Your task to perform on an android device: Go to Yahoo.com Image 0: 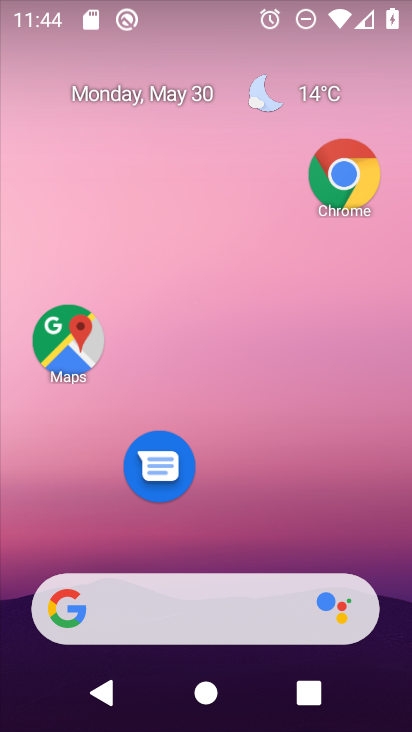
Step 0: click (322, 162)
Your task to perform on an android device: Go to Yahoo.com Image 1: 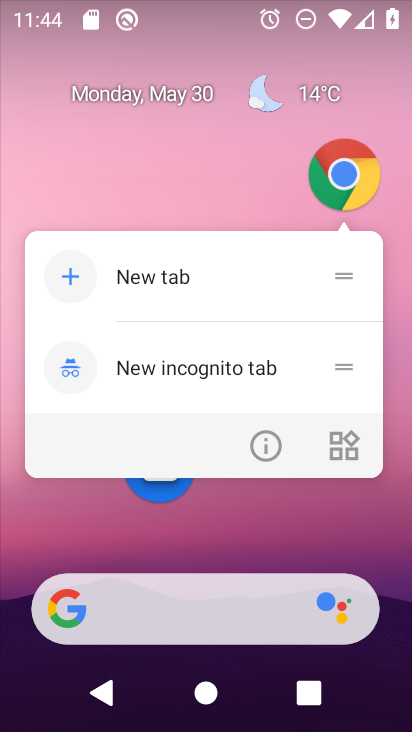
Step 1: click (322, 163)
Your task to perform on an android device: Go to Yahoo.com Image 2: 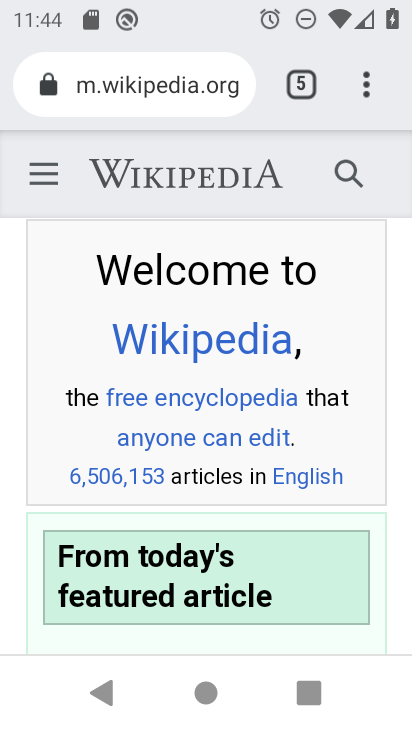
Step 2: click (296, 82)
Your task to perform on an android device: Go to Yahoo.com Image 3: 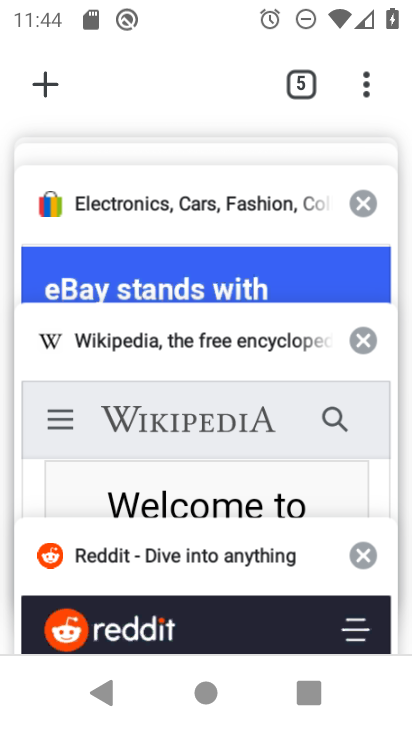
Step 3: drag from (243, 219) to (289, 536)
Your task to perform on an android device: Go to Yahoo.com Image 4: 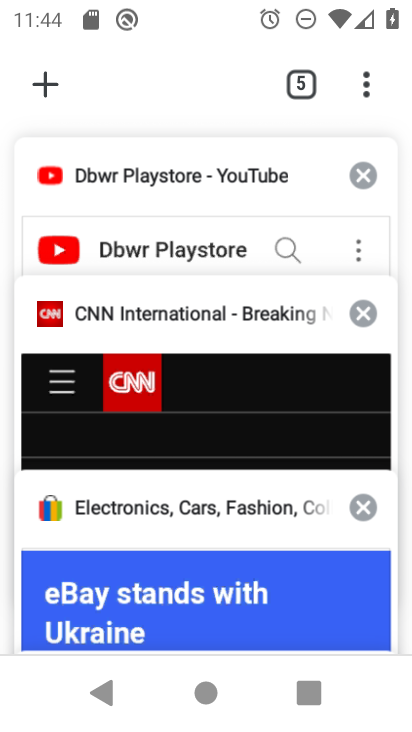
Step 4: click (45, 88)
Your task to perform on an android device: Go to Yahoo.com Image 5: 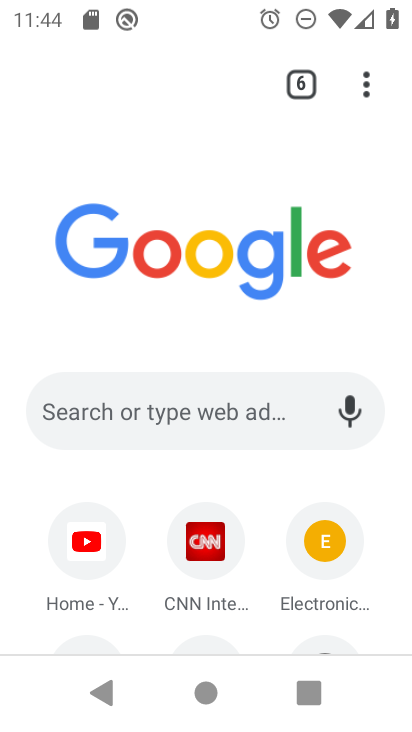
Step 5: drag from (265, 573) to (260, 347)
Your task to perform on an android device: Go to Yahoo.com Image 6: 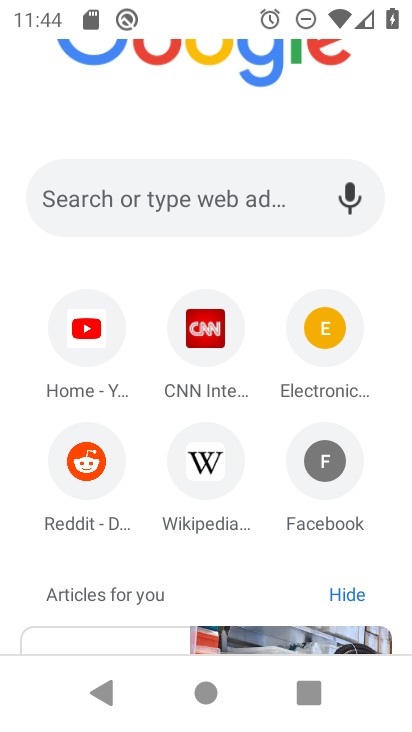
Step 6: click (203, 195)
Your task to perform on an android device: Go to Yahoo.com Image 7: 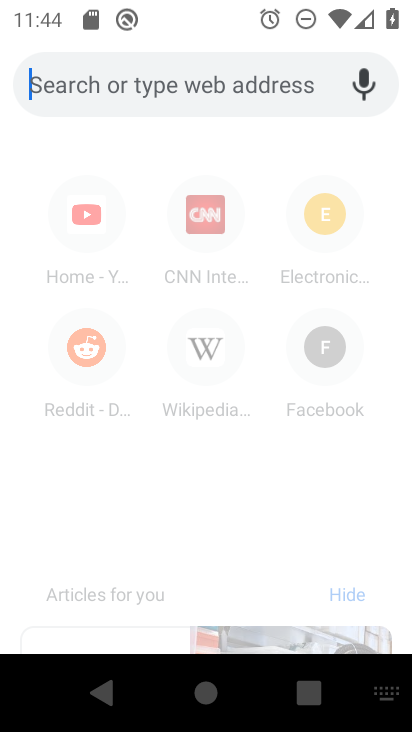
Step 7: type "Yahoo.com"
Your task to perform on an android device: Go to Yahoo.com Image 8: 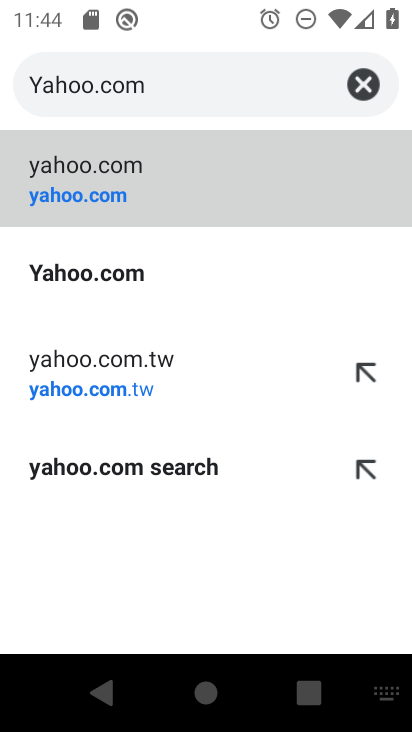
Step 8: click (225, 170)
Your task to perform on an android device: Go to Yahoo.com Image 9: 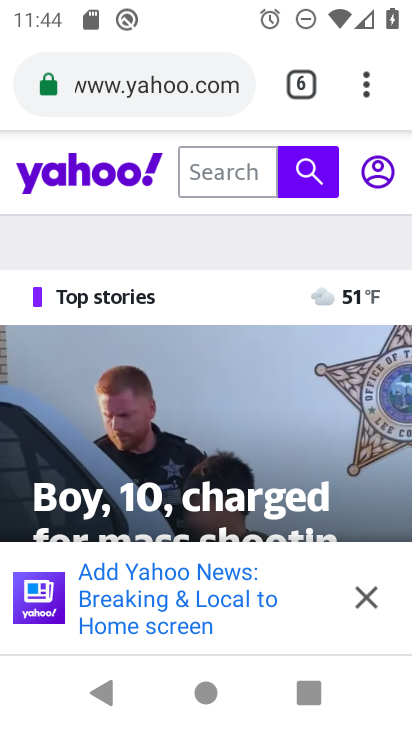
Step 9: task complete